Your task to perform on an android device: turn off notifications settings in the gmail app Image 0: 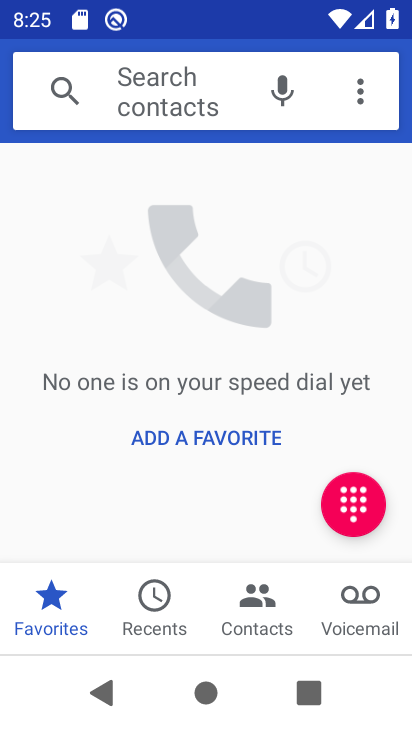
Step 0: press home button
Your task to perform on an android device: turn off notifications settings in the gmail app Image 1: 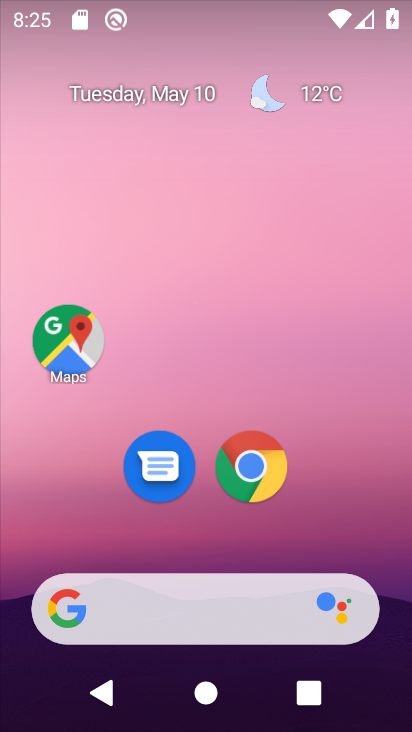
Step 1: drag from (223, 548) to (243, 17)
Your task to perform on an android device: turn off notifications settings in the gmail app Image 2: 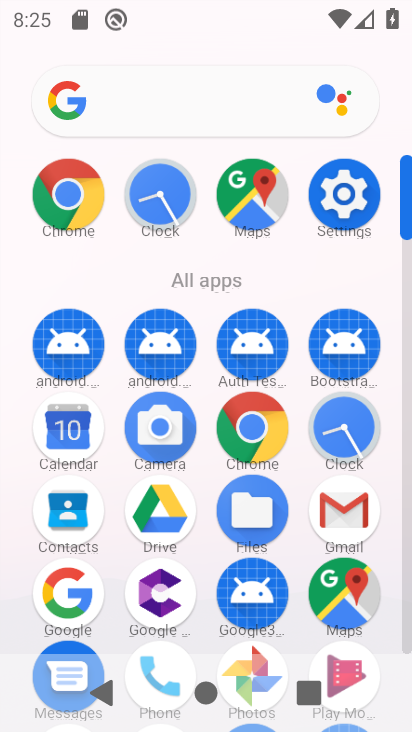
Step 2: click (329, 519)
Your task to perform on an android device: turn off notifications settings in the gmail app Image 3: 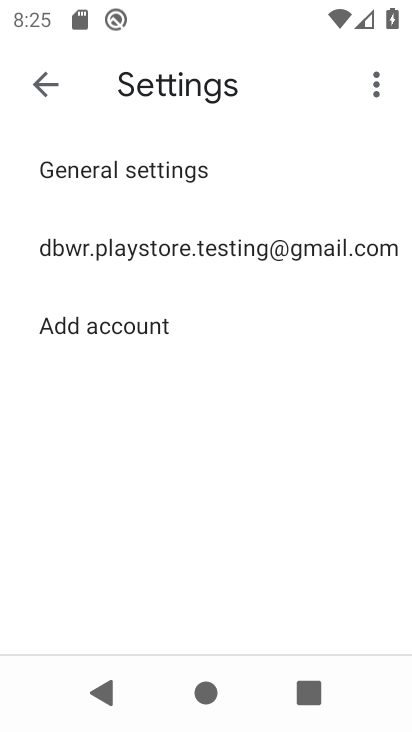
Step 3: click (133, 170)
Your task to perform on an android device: turn off notifications settings in the gmail app Image 4: 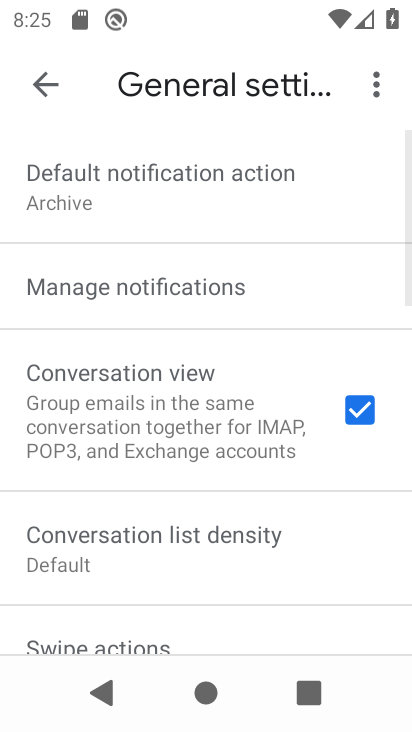
Step 4: click (177, 294)
Your task to perform on an android device: turn off notifications settings in the gmail app Image 5: 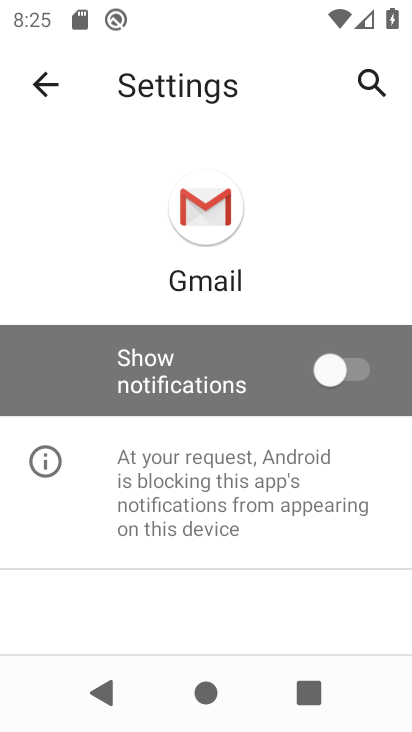
Step 5: task complete